Your task to perform on an android device: turn on the 12-hour format for clock Image 0: 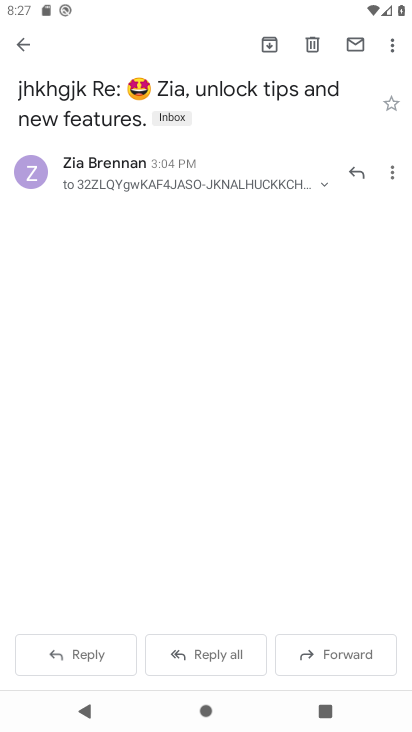
Step 0: drag from (269, 582) to (352, 346)
Your task to perform on an android device: turn on the 12-hour format for clock Image 1: 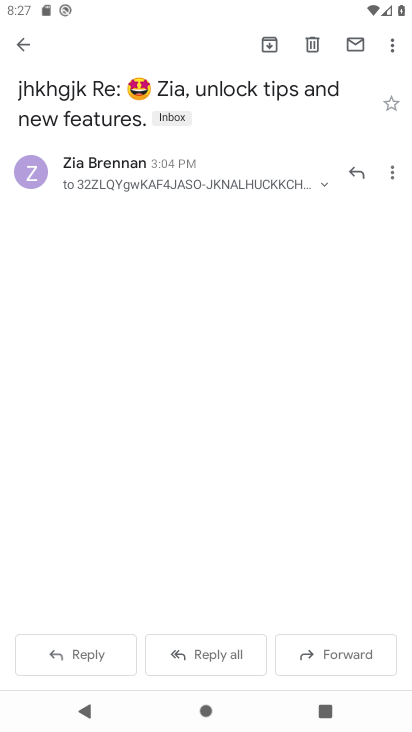
Step 1: press home button
Your task to perform on an android device: turn on the 12-hour format for clock Image 2: 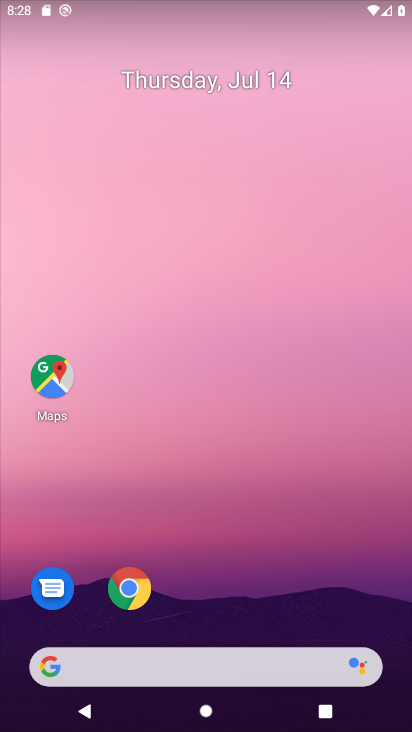
Step 2: drag from (348, 590) to (360, 100)
Your task to perform on an android device: turn on the 12-hour format for clock Image 3: 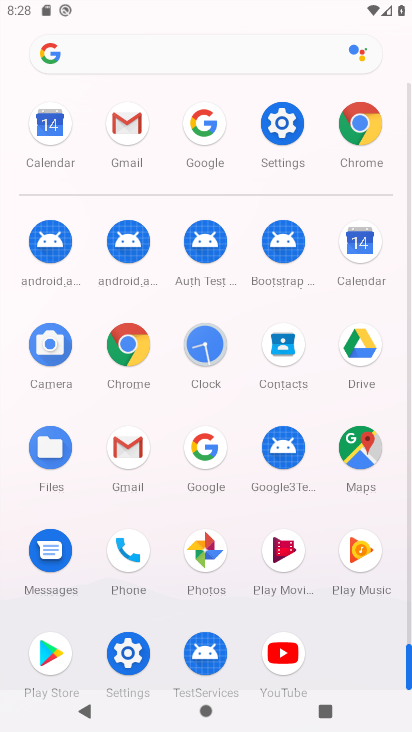
Step 3: click (208, 348)
Your task to perform on an android device: turn on the 12-hour format for clock Image 4: 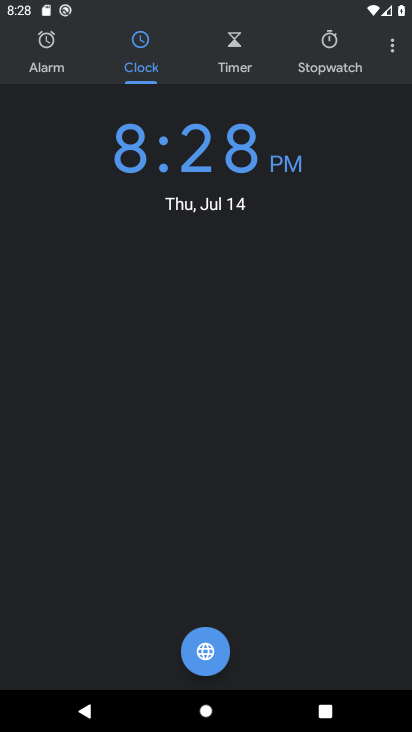
Step 4: click (392, 51)
Your task to perform on an android device: turn on the 12-hour format for clock Image 5: 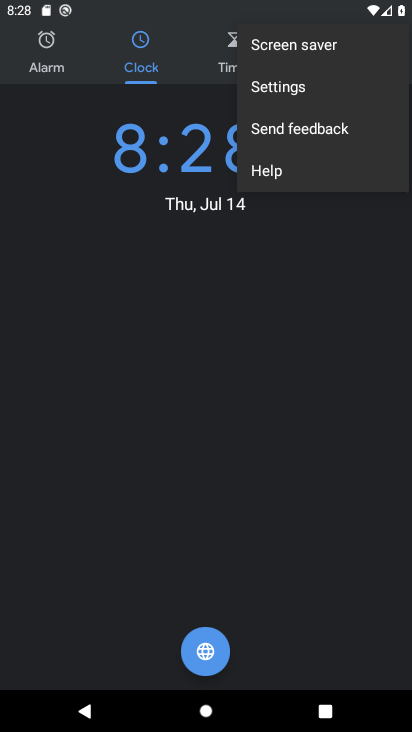
Step 5: click (349, 87)
Your task to perform on an android device: turn on the 12-hour format for clock Image 6: 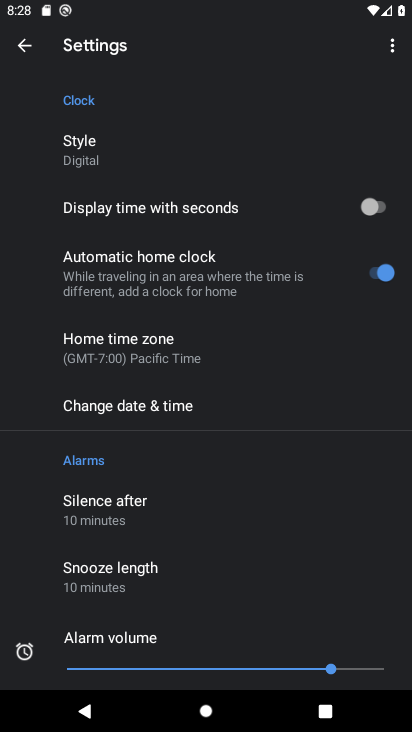
Step 6: drag from (339, 514) to (324, 421)
Your task to perform on an android device: turn on the 12-hour format for clock Image 7: 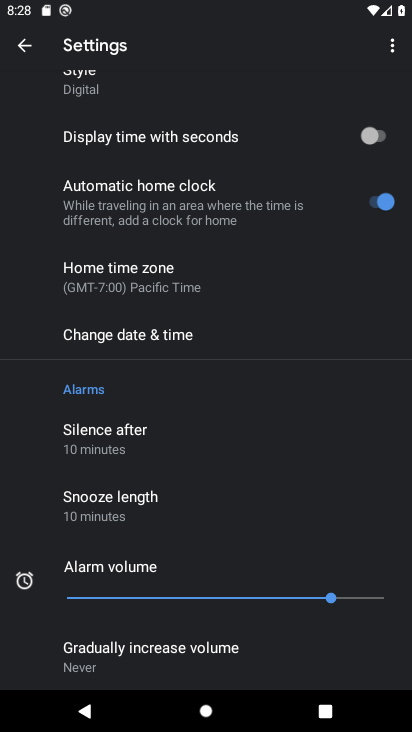
Step 7: drag from (327, 468) to (314, 368)
Your task to perform on an android device: turn on the 12-hour format for clock Image 8: 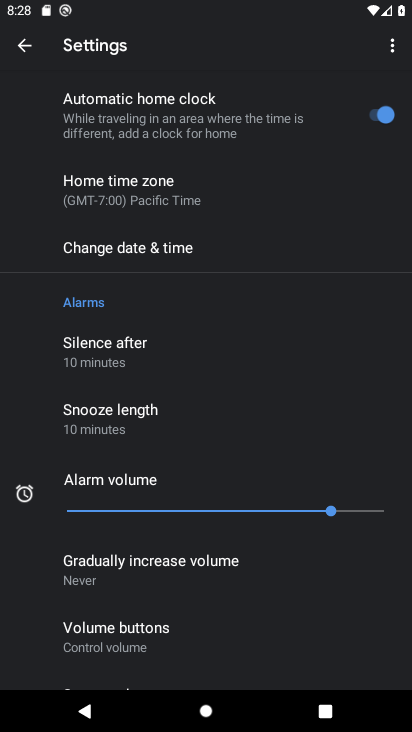
Step 8: drag from (353, 559) to (356, 445)
Your task to perform on an android device: turn on the 12-hour format for clock Image 9: 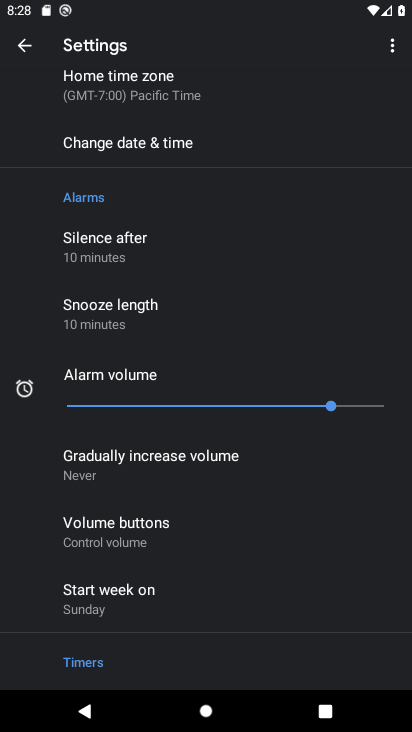
Step 9: drag from (362, 506) to (361, 430)
Your task to perform on an android device: turn on the 12-hour format for clock Image 10: 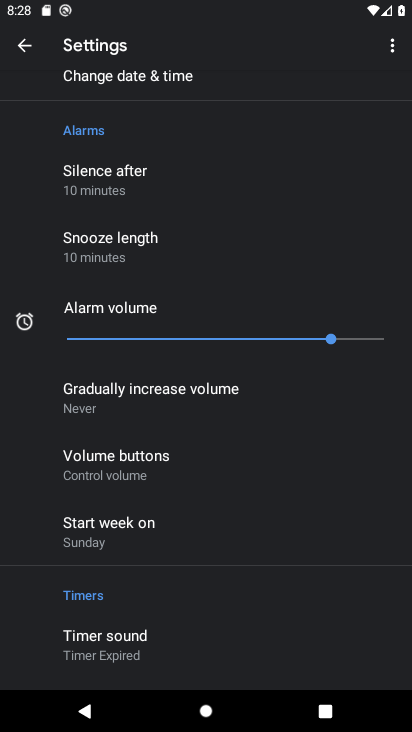
Step 10: drag from (350, 519) to (345, 440)
Your task to perform on an android device: turn on the 12-hour format for clock Image 11: 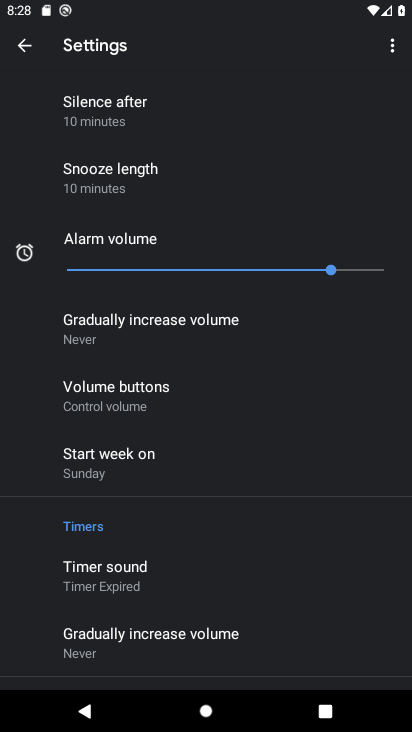
Step 11: drag from (338, 495) to (337, 418)
Your task to perform on an android device: turn on the 12-hour format for clock Image 12: 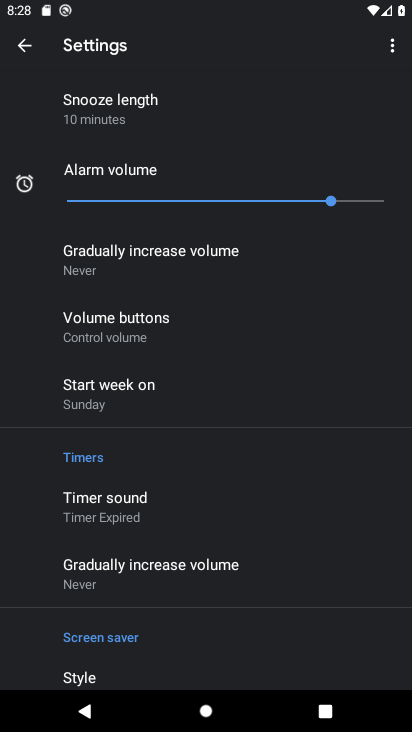
Step 12: drag from (343, 517) to (346, 331)
Your task to perform on an android device: turn on the 12-hour format for clock Image 13: 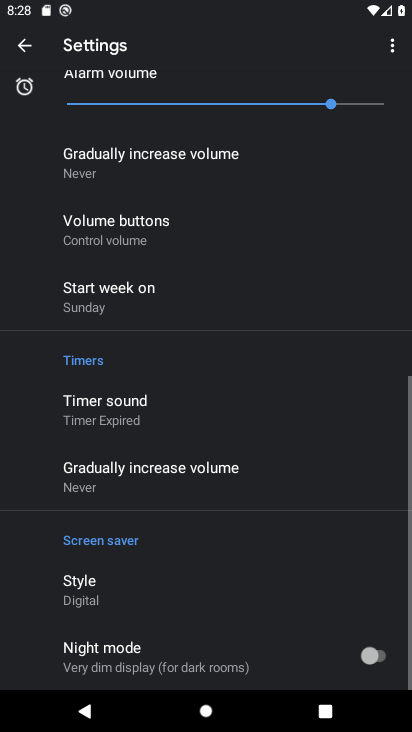
Step 13: drag from (357, 287) to (353, 374)
Your task to perform on an android device: turn on the 12-hour format for clock Image 14: 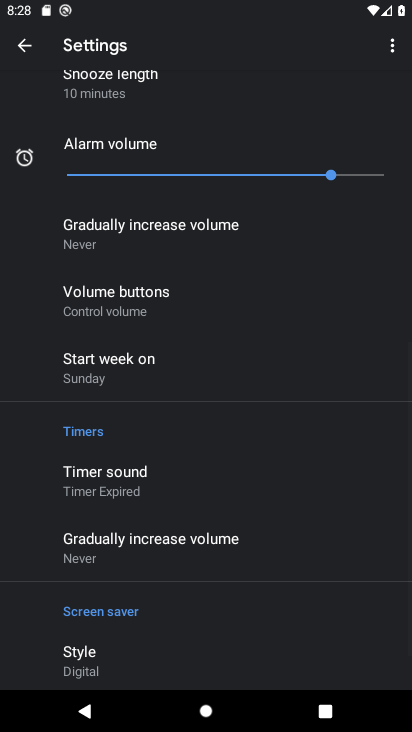
Step 14: drag from (354, 293) to (365, 409)
Your task to perform on an android device: turn on the 12-hour format for clock Image 15: 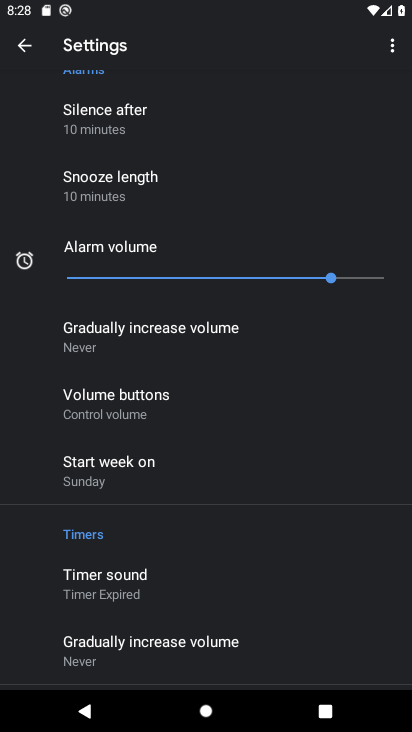
Step 15: drag from (359, 259) to (362, 363)
Your task to perform on an android device: turn on the 12-hour format for clock Image 16: 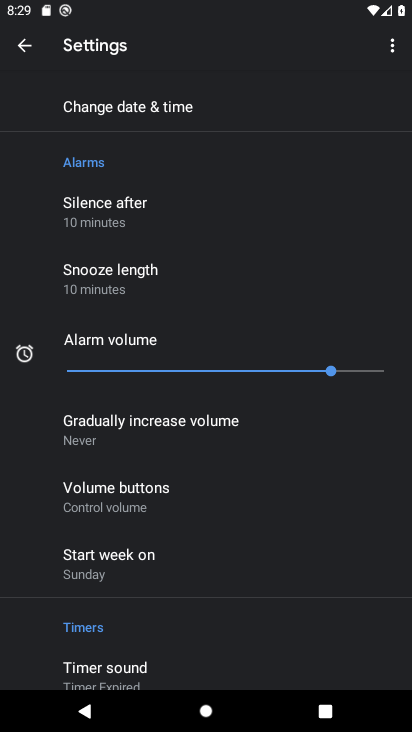
Step 16: drag from (357, 224) to (363, 258)
Your task to perform on an android device: turn on the 12-hour format for clock Image 17: 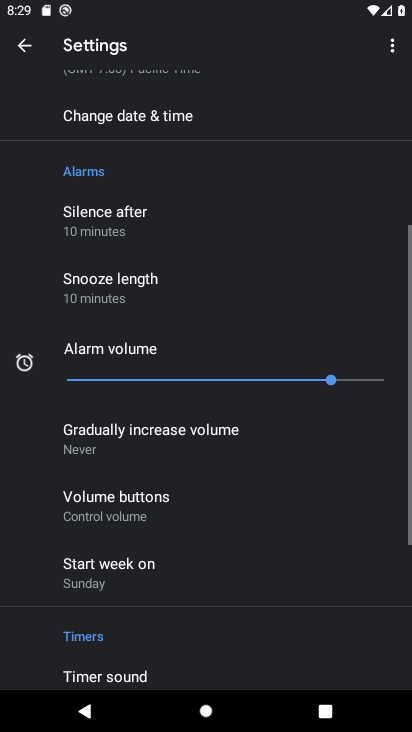
Step 17: drag from (352, 196) to (347, 349)
Your task to perform on an android device: turn on the 12-hour format for clock Image 18: 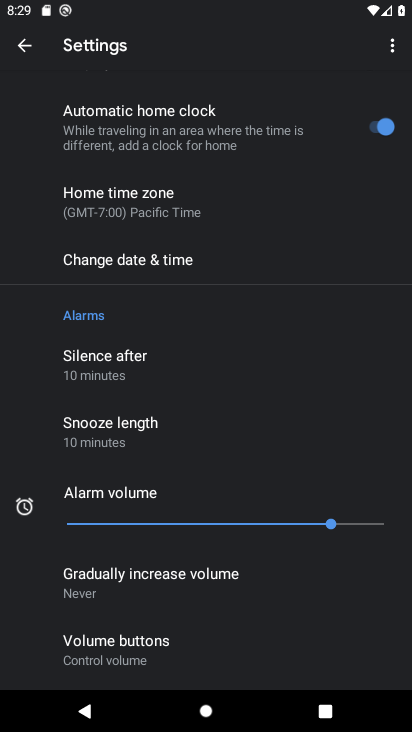
Step 18: drag from (343, 223) to (350, 443)
Your task to perform on an android device: turn on the 12-hour format for clock Image 19: 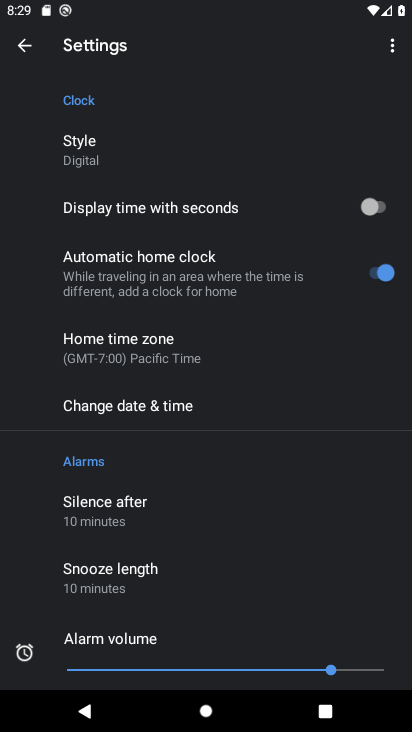
Step 19: click (219, 422)
Your task to perform on an android device: turn on the 12-hour format for clock Image 20: 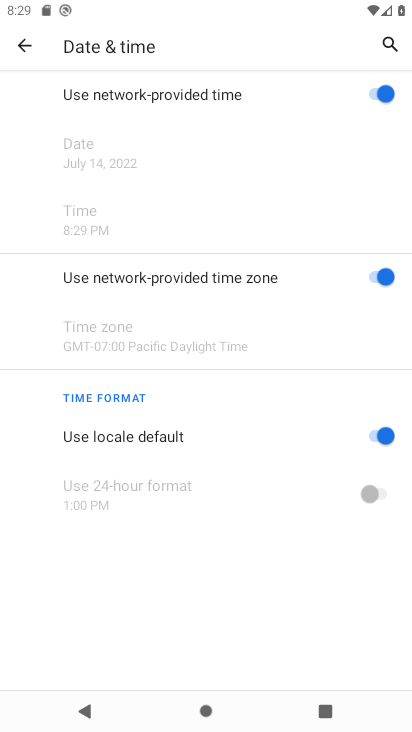
Step 20: task complete